Your task to perform on an android device: open app "Instagram" (install if not already installed) Image 0: 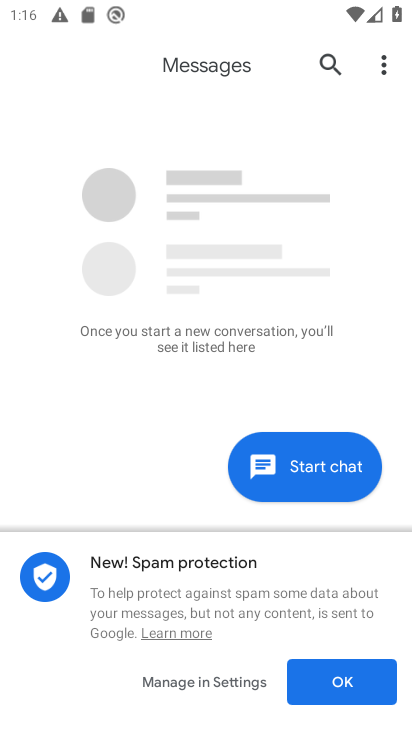
Step 0: press home button
Your task to perform on an android device: open app "Instagram" (install if not already installed) Image 1: 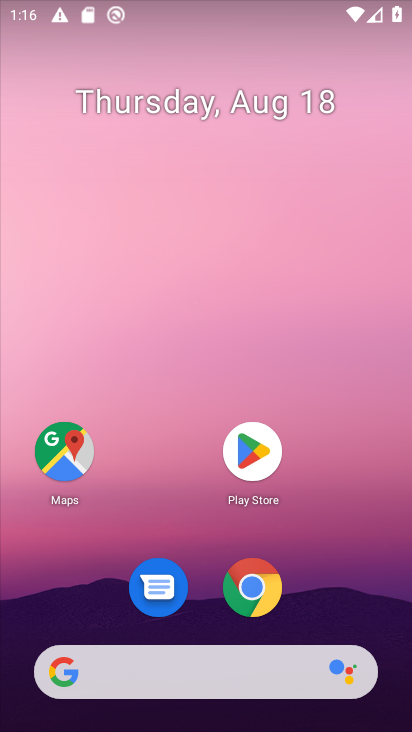
Step 1: click (257, 449)
Your task to perform on an android device: open app "Instagram" (install if not already installed) Image 2: 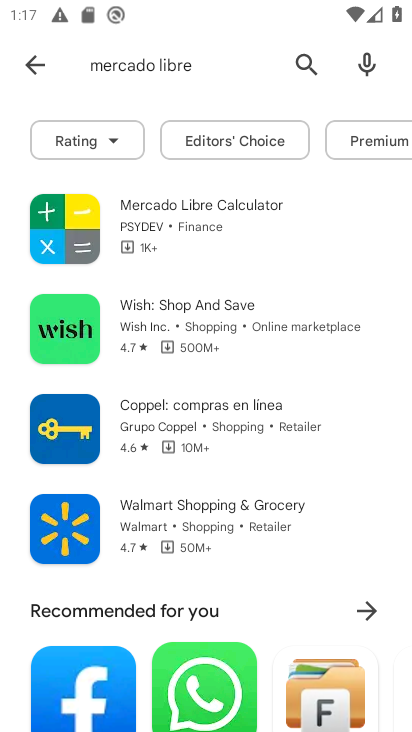
Step 2: click (303, 60)
Your task to perform on an android device: open app "Instagram" (install if not already installed) Image 3: 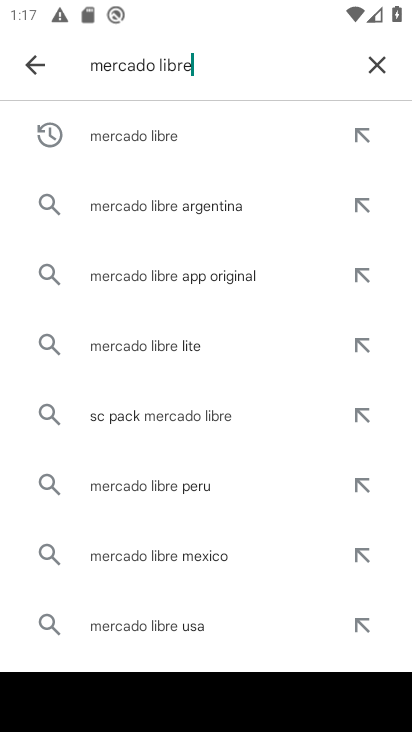
Step 3: click (377, 57)
Your task to perform on an android device: open app "Instagram" (install if not already installed) Image 4: 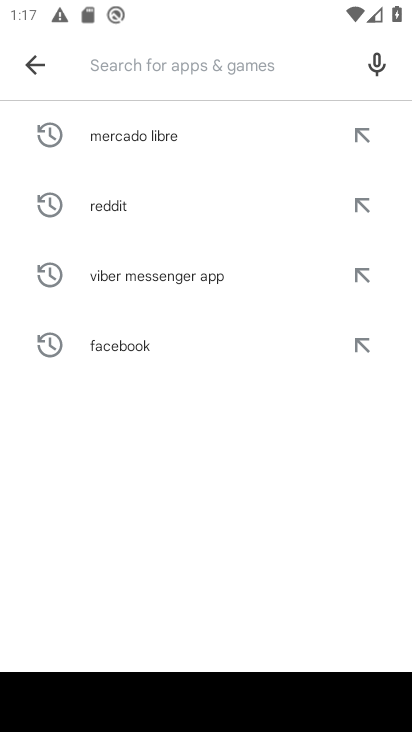
Step 4: type "Instagram"
Your task to perform on an android device: open app "Instagram" (install if not already installed) Image 5: 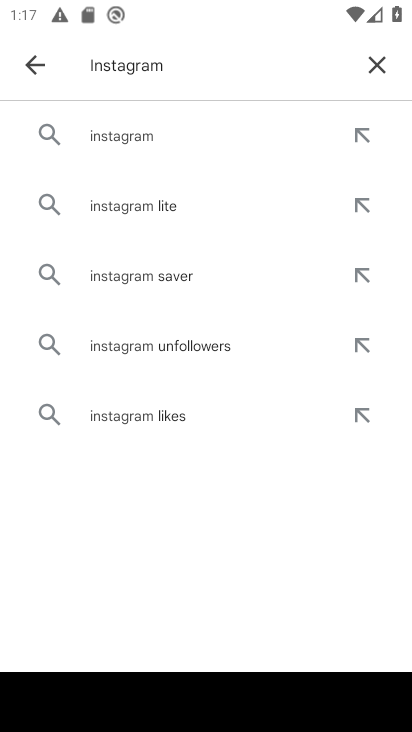
Step 5: click (129, 140)
Your task to perform on an android device: open app "Instagram" (install if not already installed) Image 6: 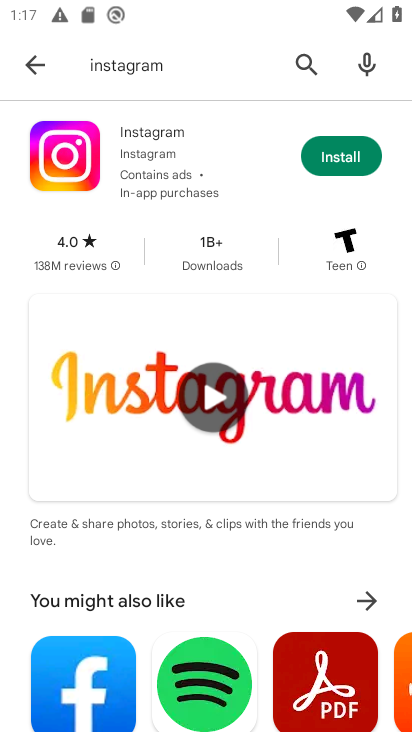
Step 6: click (347, 149)
Your task to perform on an android device: open app "Instagram" (install if not already installed) Image 7: 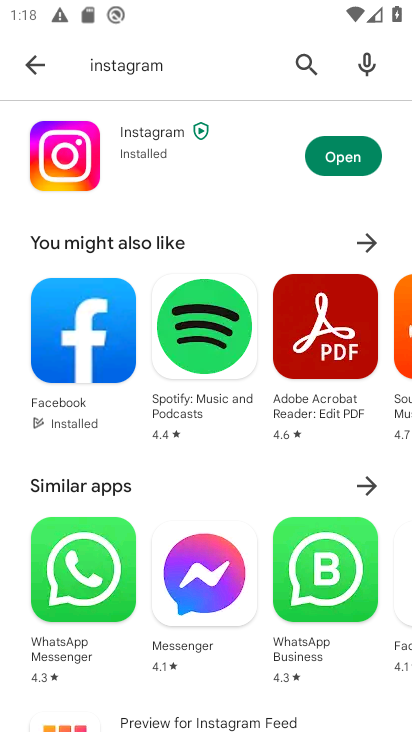
Step 7: click (345, 164)
Your task to perform on an android device: open app "Instagram" (install if not already installed) Image 8: 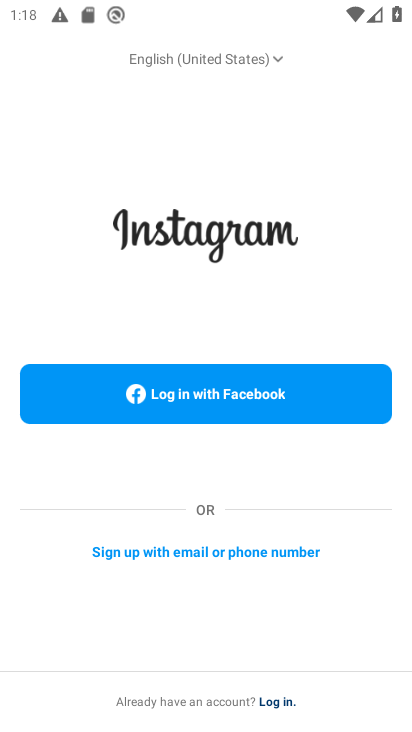
Step 8: task complete